Your task to perform on an android device: change keyboard looks Image 0: 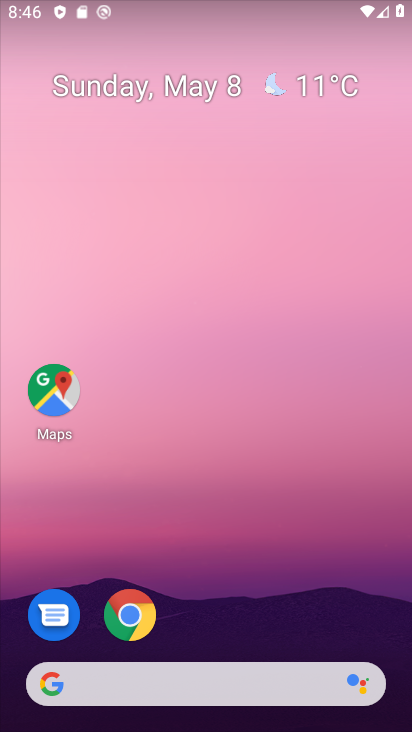
Step 0: drag from (267, 622) to (200, 46)
Your task to perform on an android device: change keyboard looks Image 1: 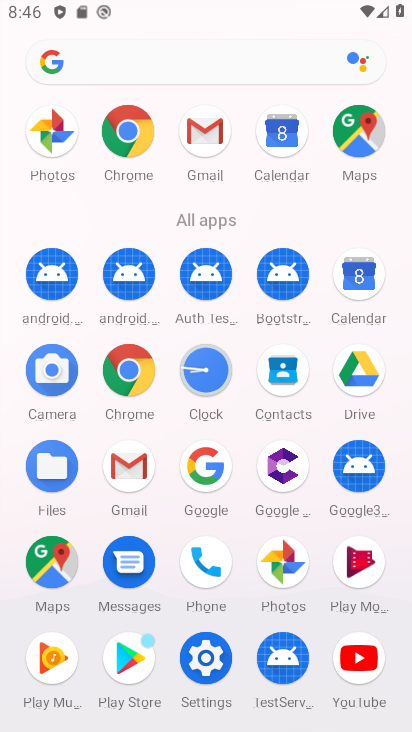
Step 1: click (212, 651)
Your task to perform on an android device: change keyboard looks Image 2: 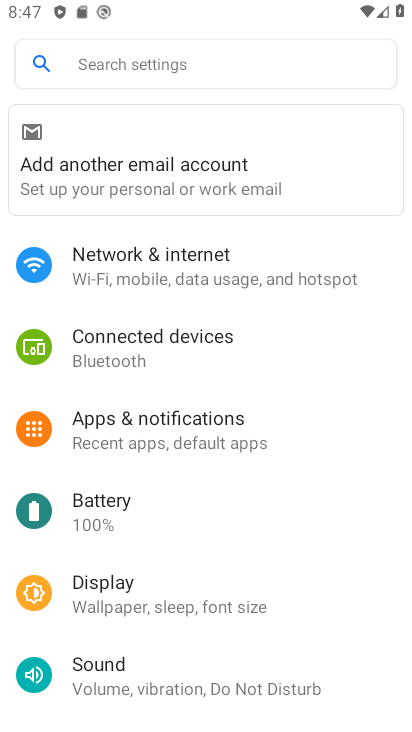
Step 2: drag from (284, 637) to (221, 122)
Your task to perform on an android device: change keyboard looks Image 3: 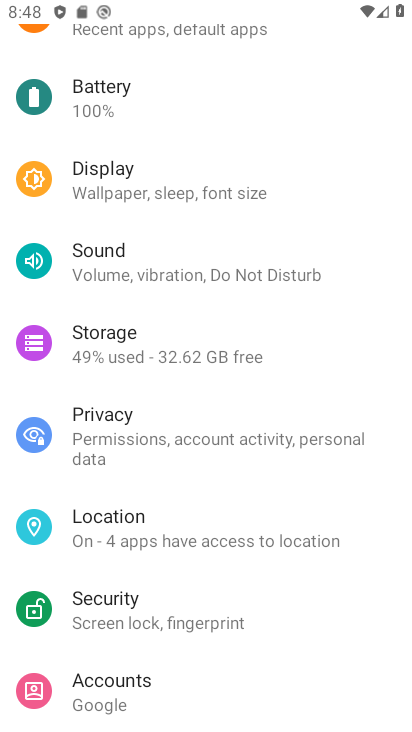
Step 3: drag from (171, 600) to (253, 144)
Your task to perform on an android device: change keyboard looks Image 4: 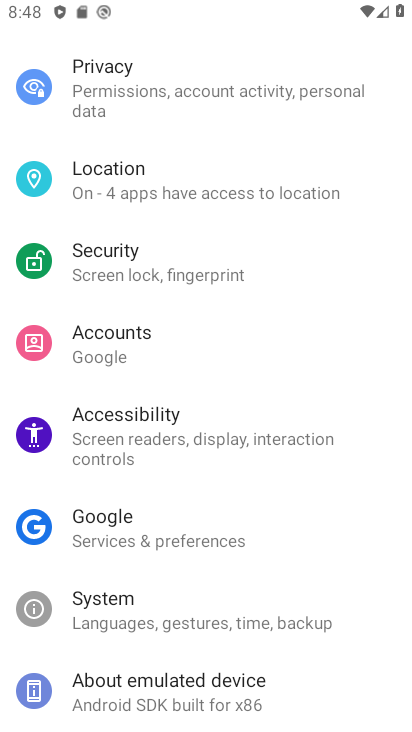
Step 4: drag from (208, 575) to (260, 345)
Your task to perform on an android device: change keyboard looks Image 5: 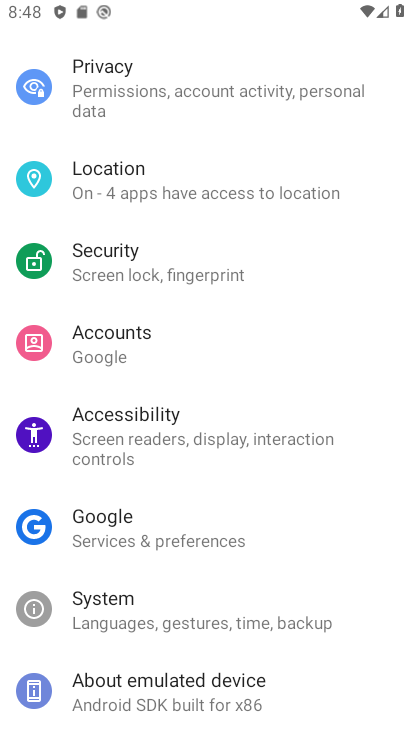
Step 5: click (134, 609)
Your task to perform on an android device: change keyboard looks Image 6: 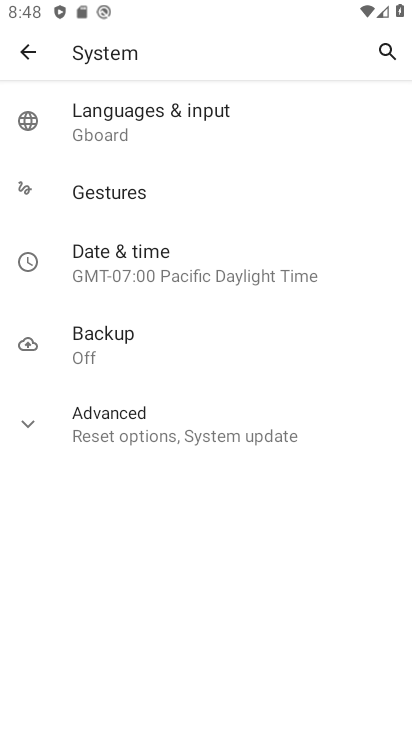
Step 6: click (138, 109)
Your task to perform on an android device: change keyboard looks Image 7: 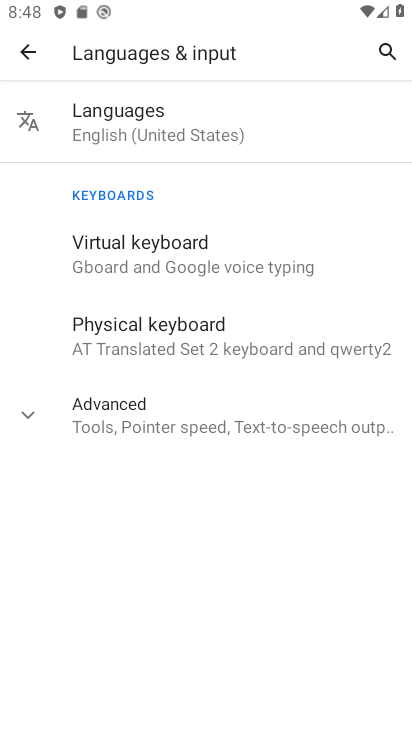
Step 7: click (185, 266)
Your task to perform on an android device: change keyboard looks Image 8: 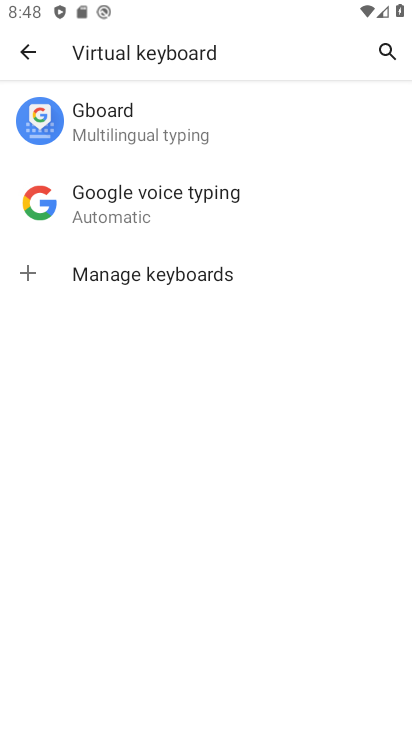
Step 8: click (126, 125)
Your task to perform on an android device: change keyboard looks Image 9: 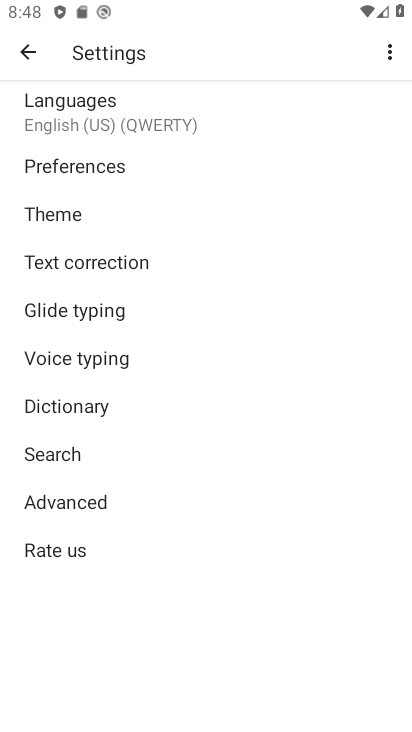
Step 9: click (72, 218)
Your task to perform on an android device: change keyboard looks Image 10: 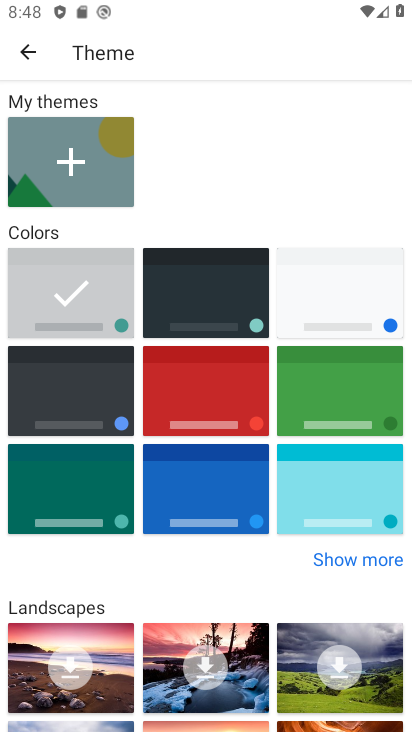
Step 10: click (361, 304)
Your task to perform on an android device: change keyboard looks Image 11: 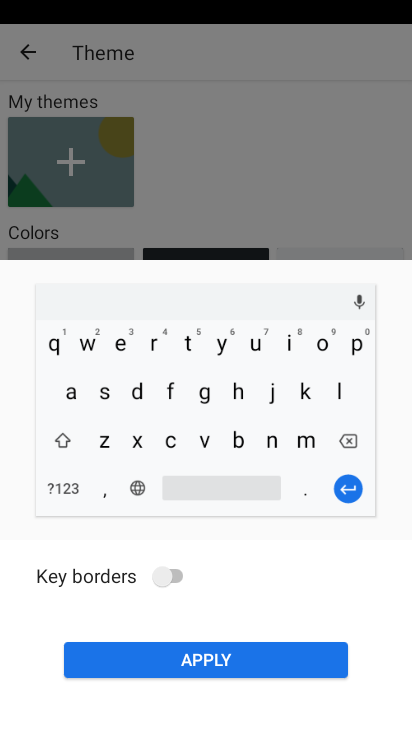
Step 11: click (240, 655)
Your task to perform on an android device: change keyboard looks Image 12: 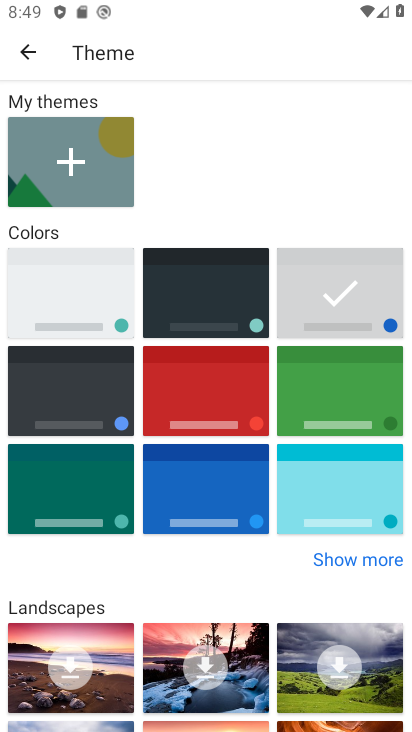
Step 12: task complete